Your task to perform on an android device: Open wifi settings Image 0: 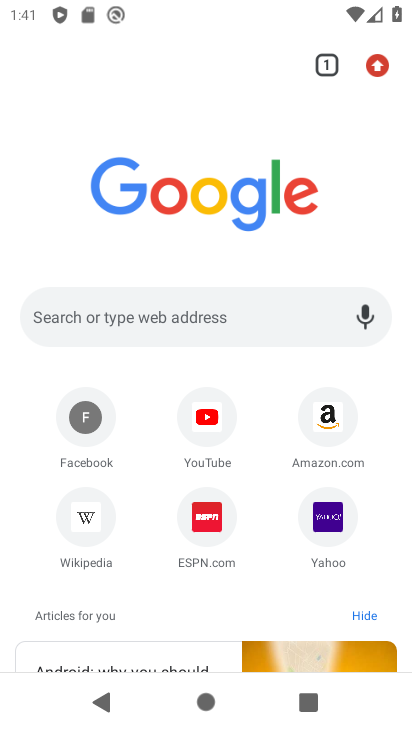
Step 0: drag from (27, 533) to (19, 87)
Your task to perform on an android device: Open wifi settings Image 1: 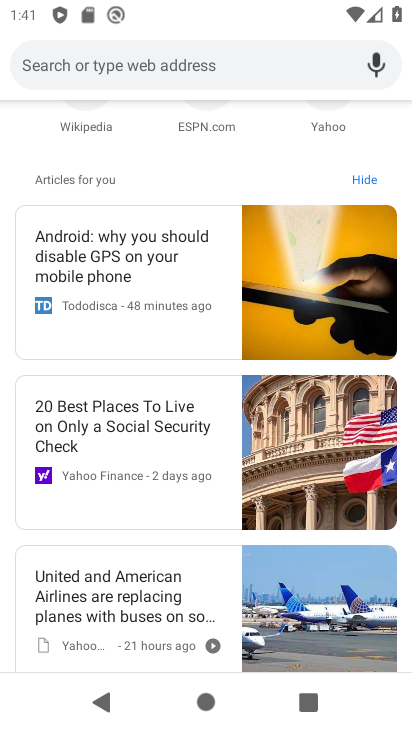
Step 1: press back button
Your task to perform on an android device: Open wifi settings Image 2: 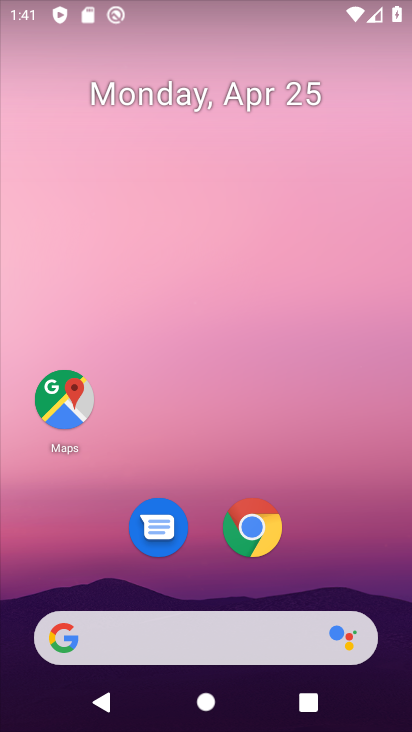
Step 2: drag from (357, 493) to (335, 3)
Your task to perform on an android device: Open wifi settings Image 3: 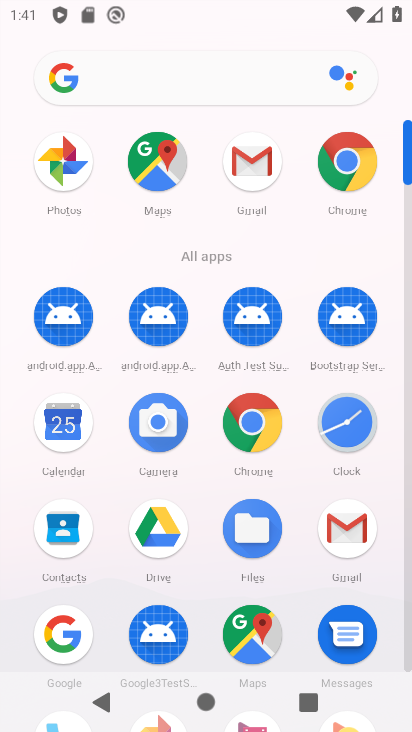
Step 3: drag from (24, 534) to (15, 248)
Your task to perform on an android device: Open wifi settings Image 4: 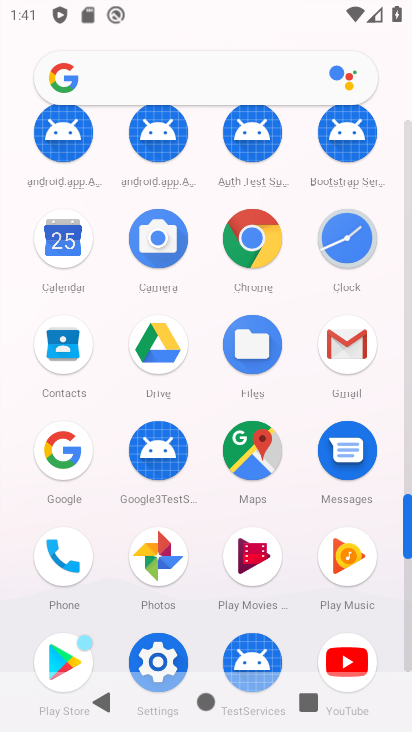
Step 4: click (159, 660)
Your task to perform on an android device: Open wifi settings Image 5: 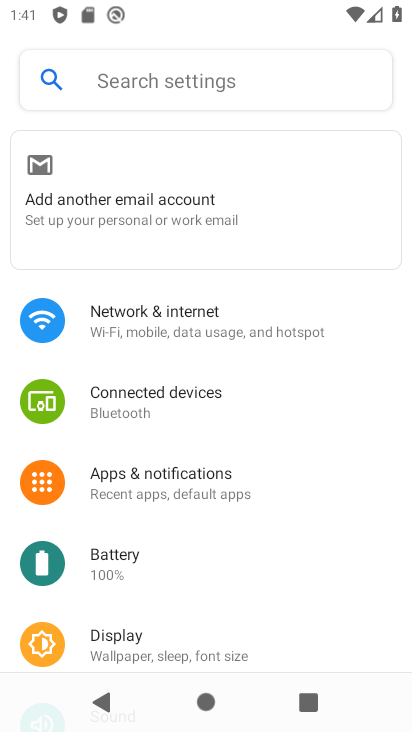
Step 5: drag from (232, 535) to (274, 162)
Your task to perform on an android device: Open wifi settings Image 6: 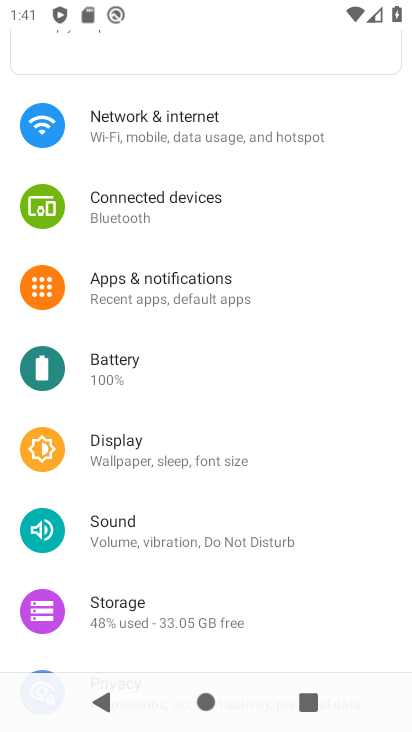
Step 6: drag from (237, 620) to (286, 95)
Your task to perform on an android device: Open wifi settings Image 7: 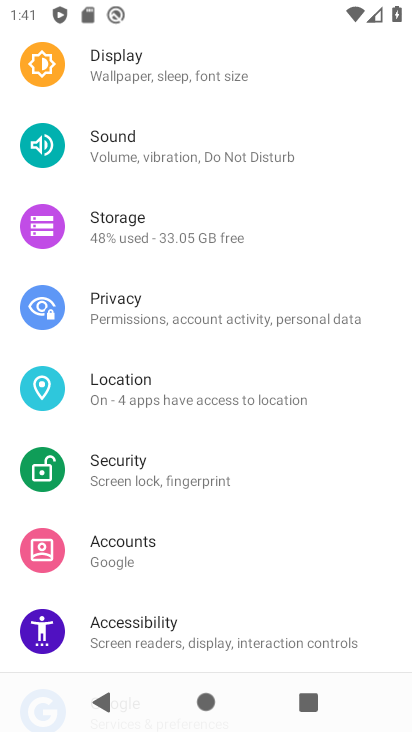
Step 7: drag from (292, 519) to (309, 68)
Your task to perform on an android device: Open wifi settings Image 8: 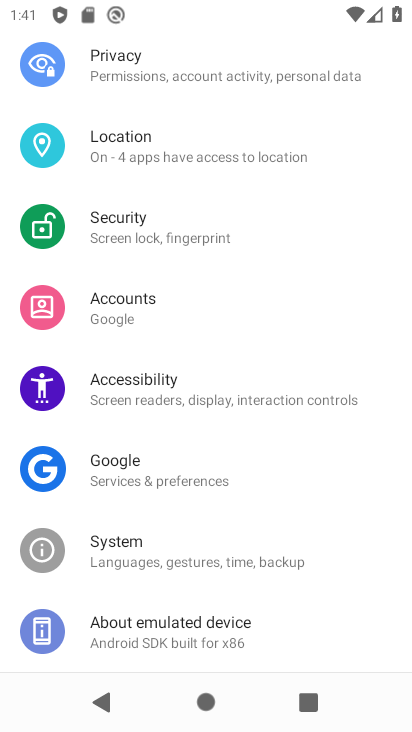
Step 8: drag from (243, 612) to (278, 128)
Your task to perform on an android device: Open wifi settings Image 9: 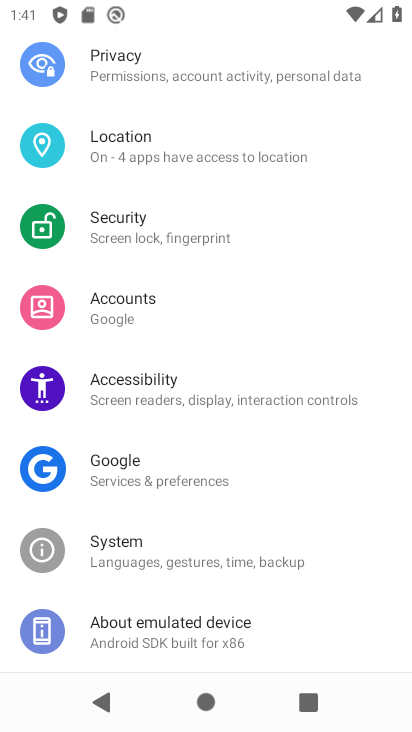
Step 9: drag from (297, 135) to (297, 554)
Your task to perform on an android device: Open wifi settings Image 10: 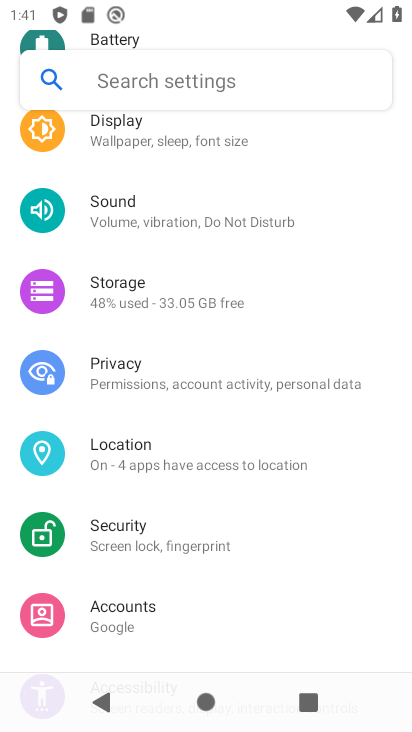
Step 10: drag from (272, 150) to (271, 584)
Your task to perform on an android device: Open wifi settings Image 11: 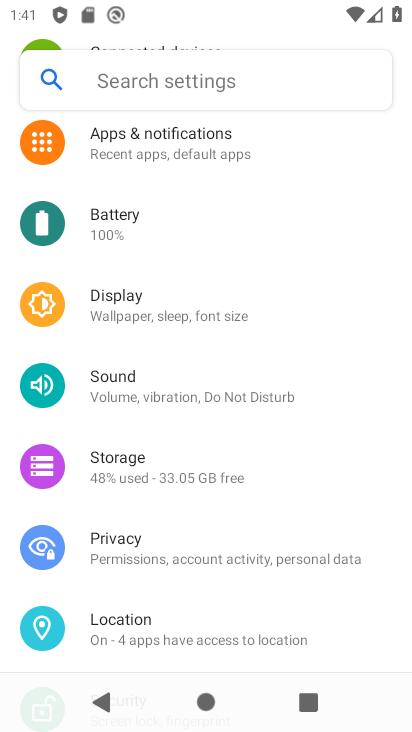
Step 11: drag from (275, 198) to (277, 566)
Your task to perform on an android device: Open wifi settings Image 12: 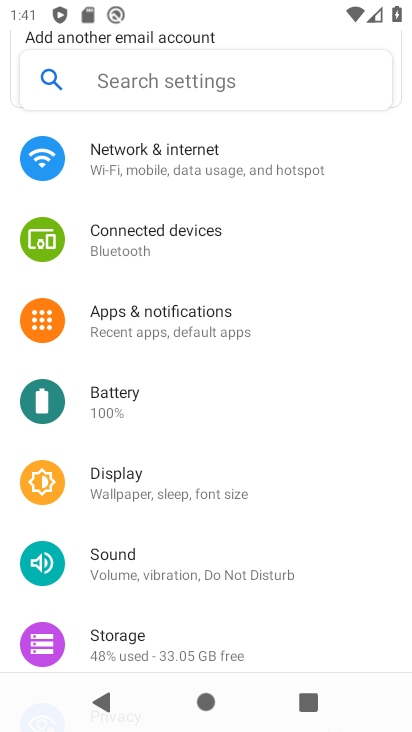
Step 12: drag from (295, 206) to (286, 450)
Your task to perform on an android device: Open wifi settings Image 13: 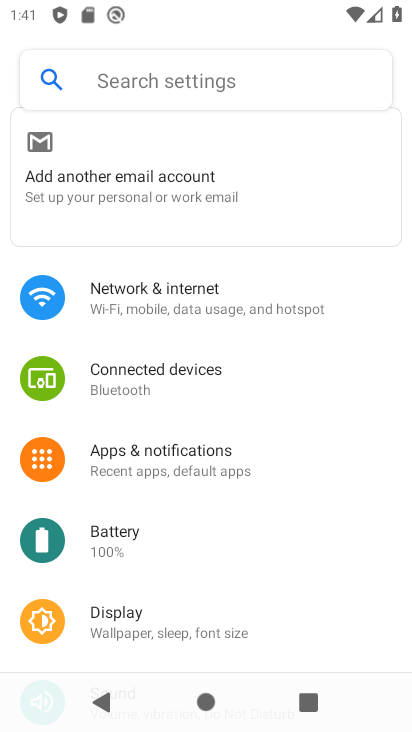
Step 13: click (177, 296)
Your task to perform on an android device: Open wifi settings Image 14: 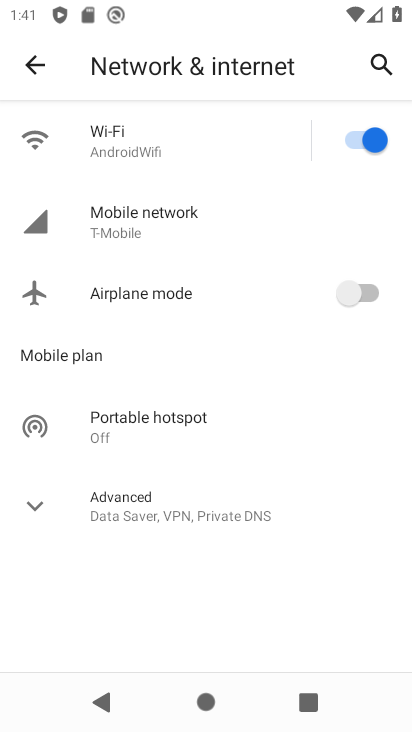
Step 14: click (168, 146)
Your task to perform on an android device: Open wifi settings Image 15: 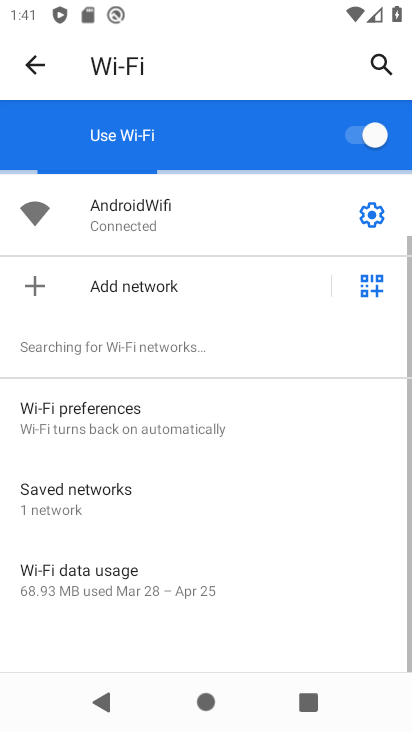
Step 15: task complete